Your task to perform on an android device: Clear the cart on amazon. Image 0: 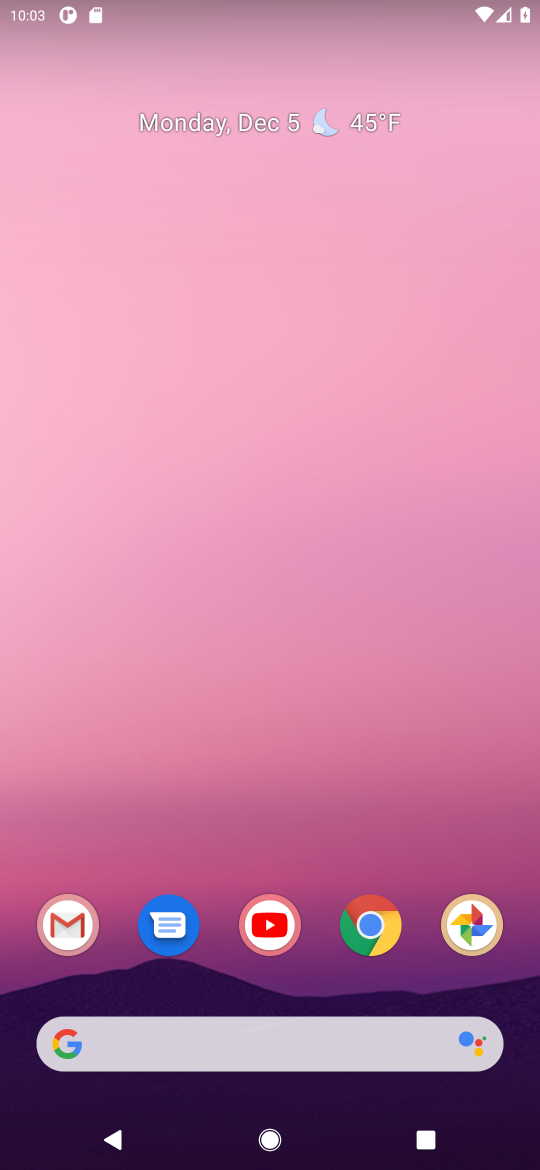
Step 0: click (367, 945)
Your task to perform on an android device: Clear the cart on amazon. Image 1: 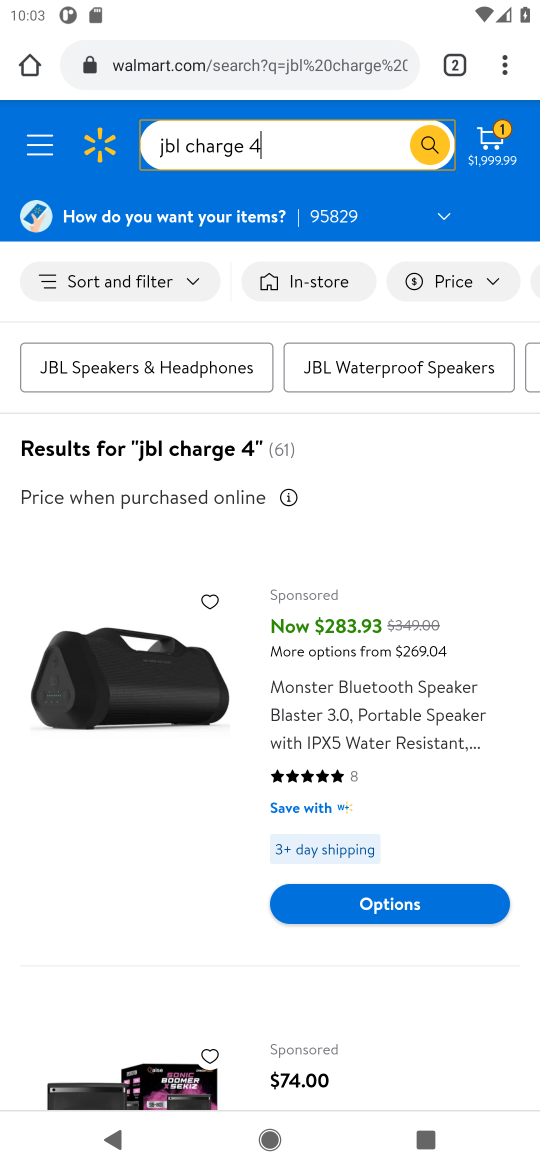
Step 1: click (171, 56)
Your task to perform on an android device: Clear the cart on amazon. Image 2: 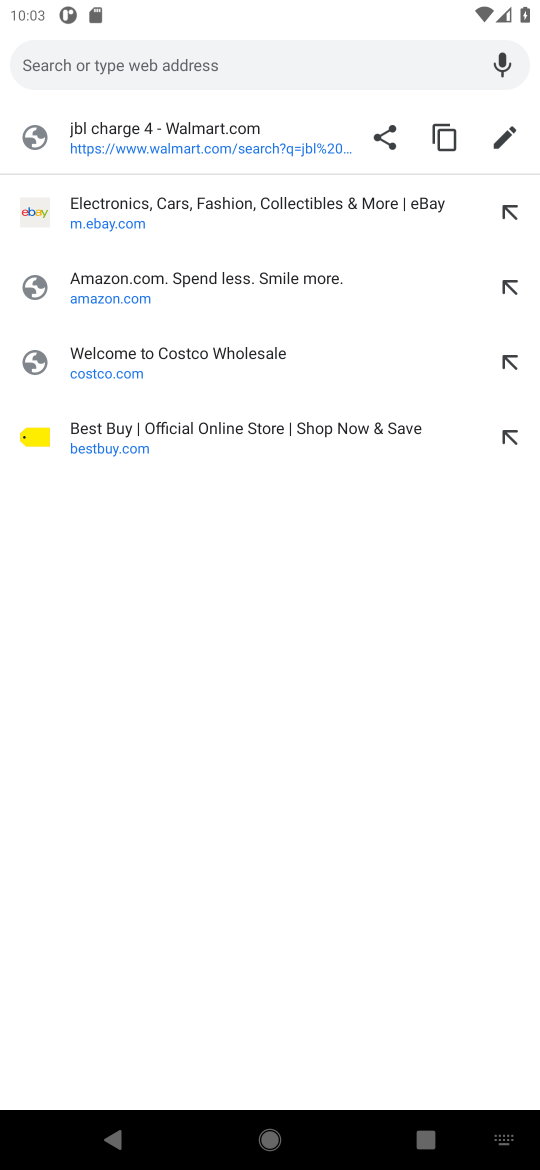
Step 2: click (83, 293)
Your task to perform on an android device: Clear the cart on amazon. Image 3: 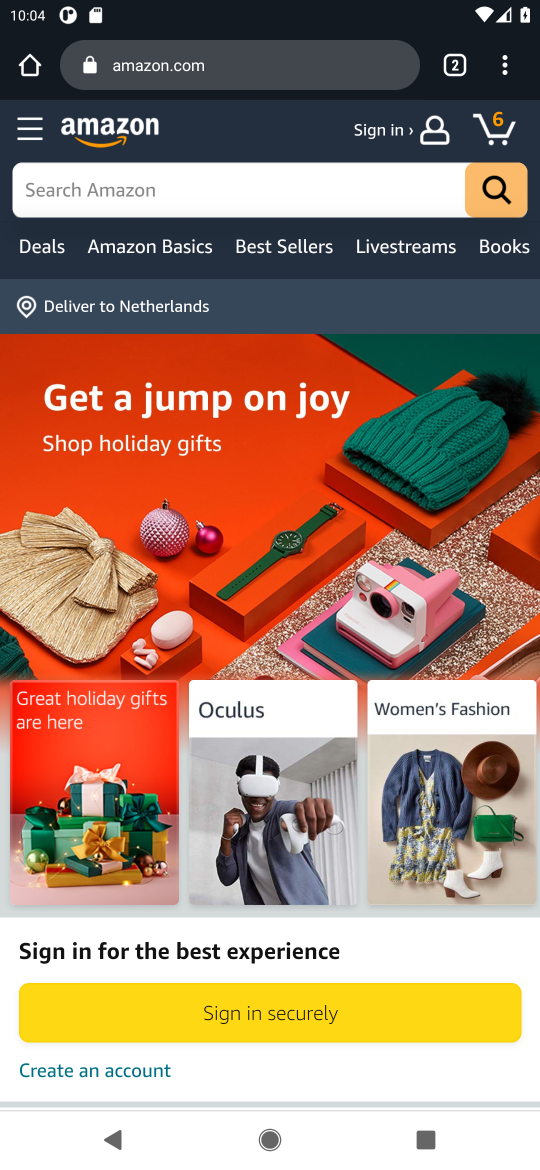
Step 3: click (494, 139)
Your task to perform on an android device: Clear the cart on amazon. Image 4: 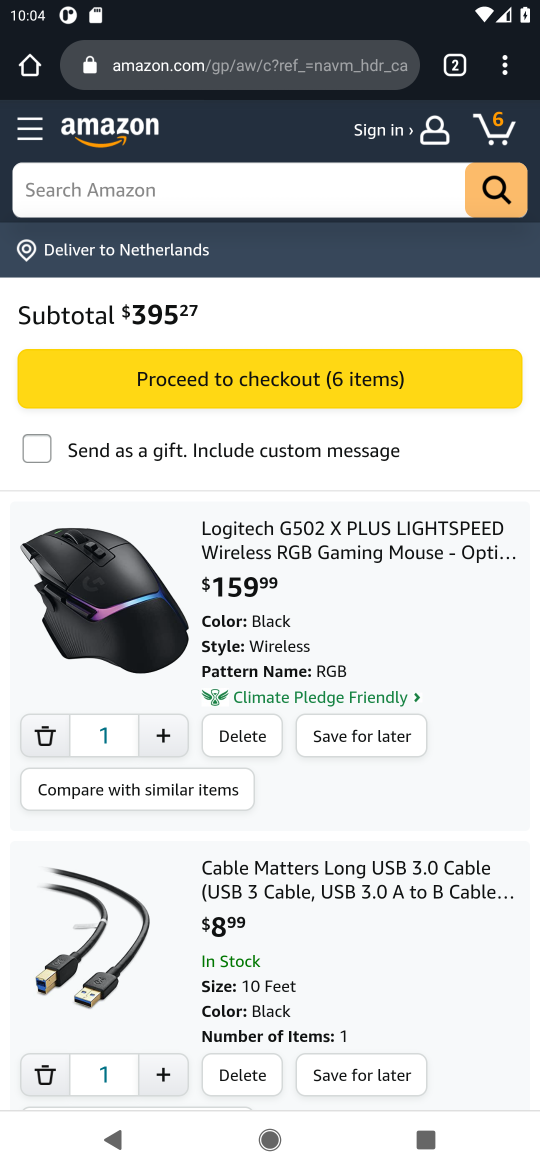
Step 4: click (253, 736)
Your task to perform on an android device: Clear the cart on amazon. Image 5: 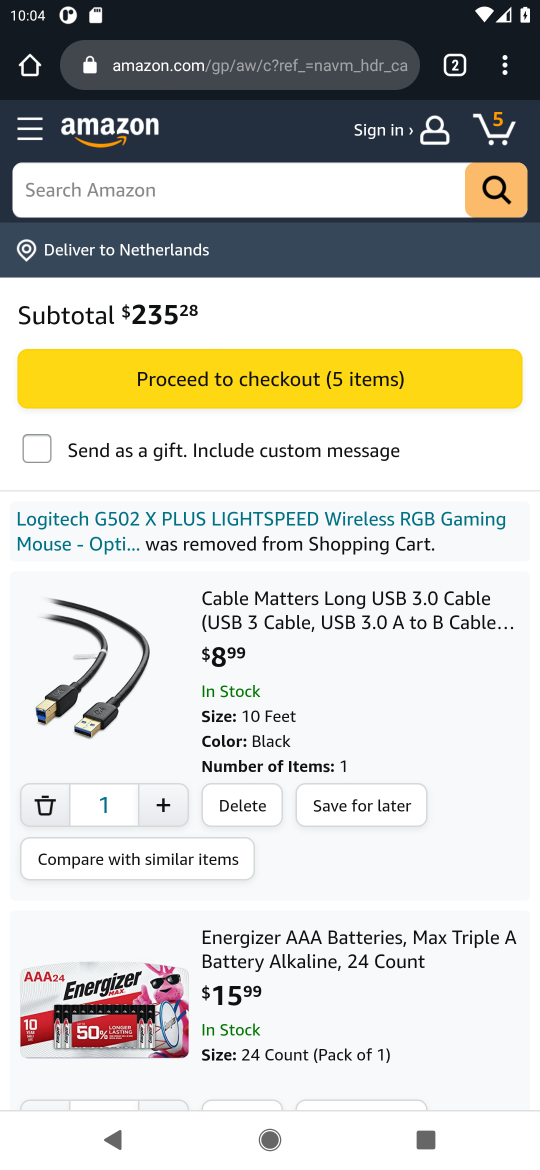
Step 5: click (240, 806)
Your task to perform on an android device: Clear the cart on amazon. Image 6: 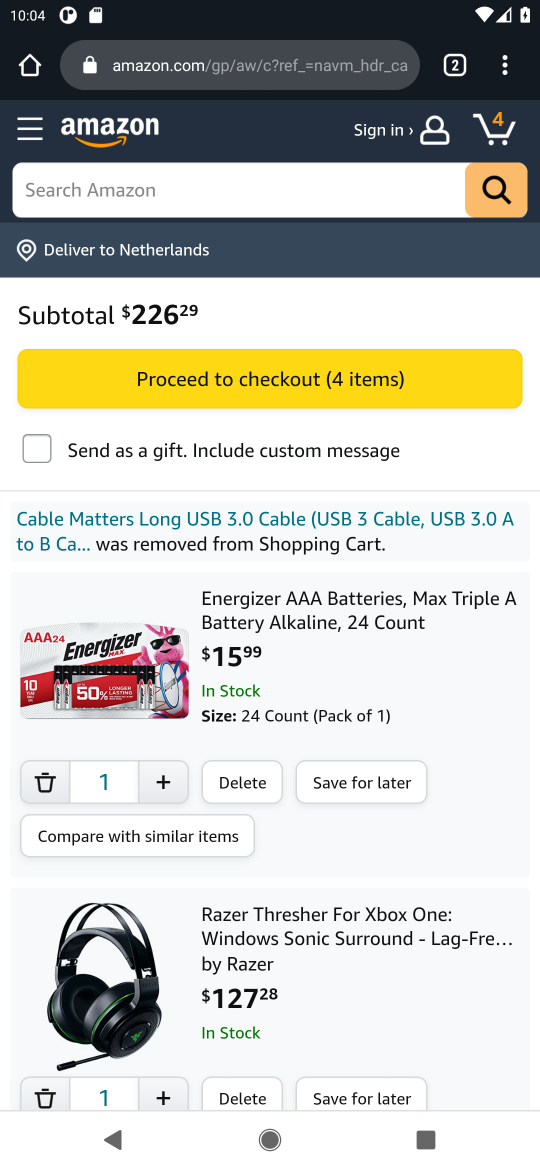
Step 6: click (244, 784)
Your task to perform on an android device: Clear the cart on amazon. Image 7: 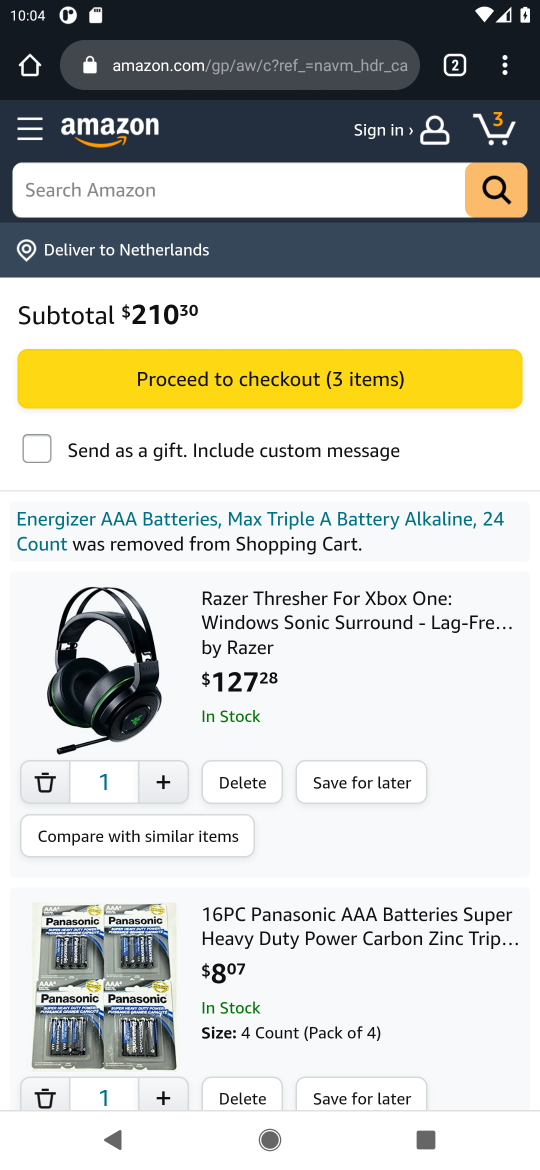
Step 7: click (244, 784)
Your task to perform on an android device: Clear the cart on amazon. Image 8: 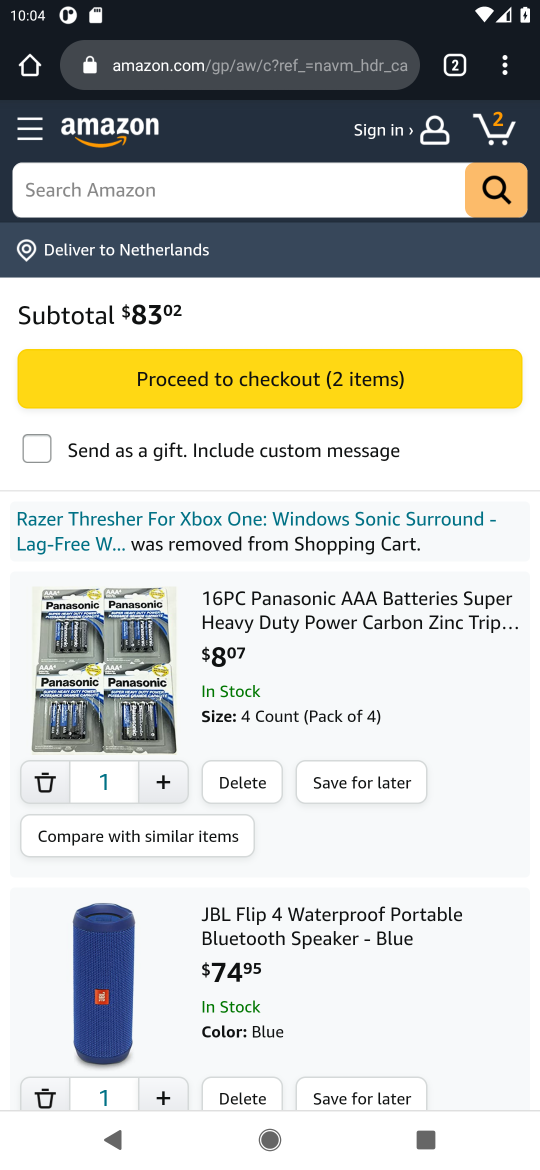
Step 8: click (244, 784)
Your task to perform on an android device: Clear the cart on amazon. Image 9: 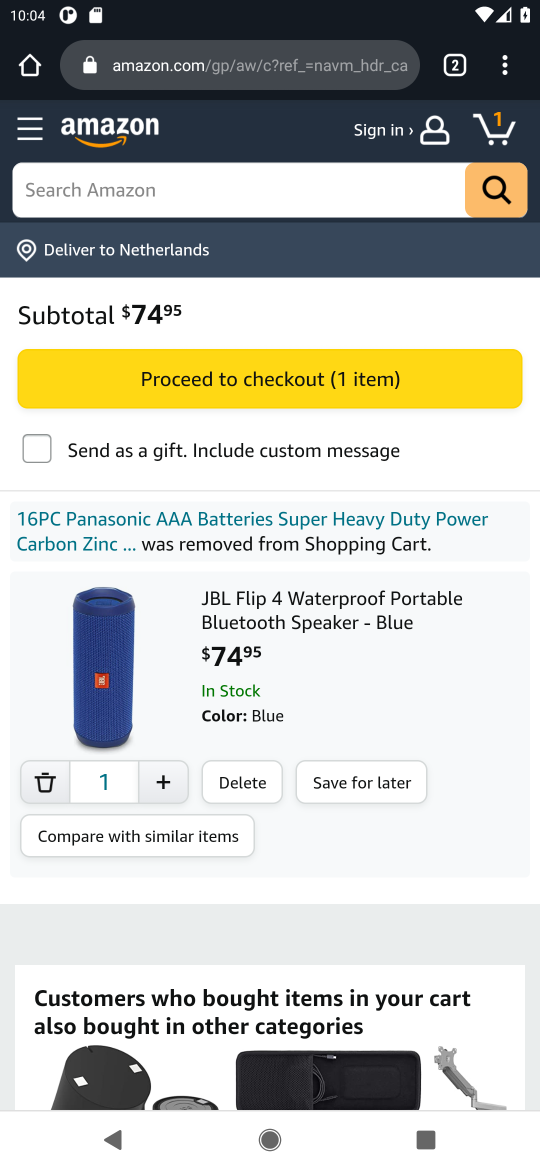
Step 9: click (244, 784)
Your task to perform on an android device: Clear the cart on amazon. Image 10: 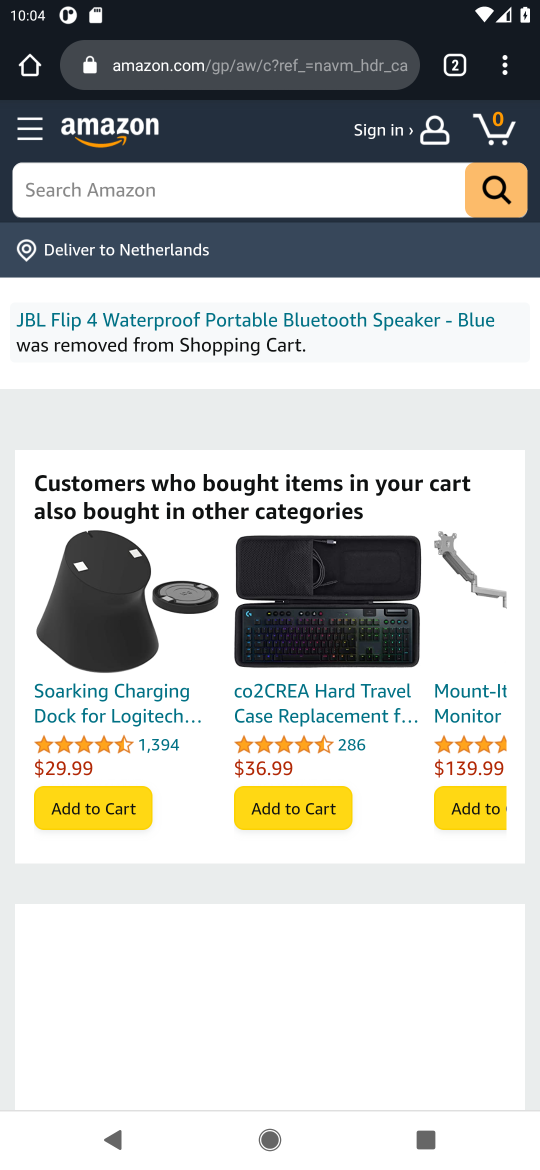
Step 10: task complete